Your task to perform on an android device: turn off location Image 0: 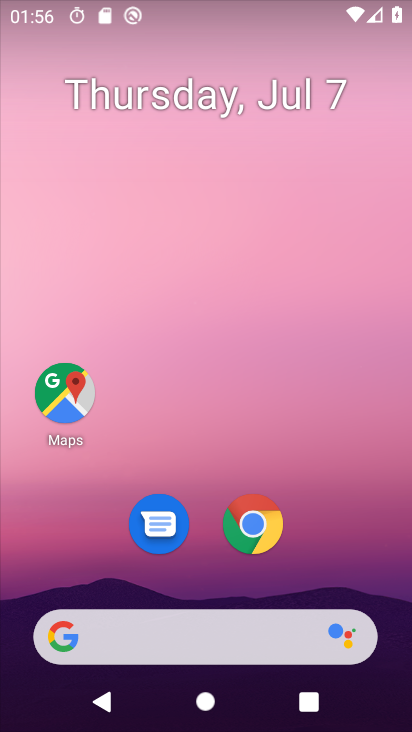
Step 0: drag from (179, 452) to (264, 38)
Your task to perform on an android device: turn off location Image 1: 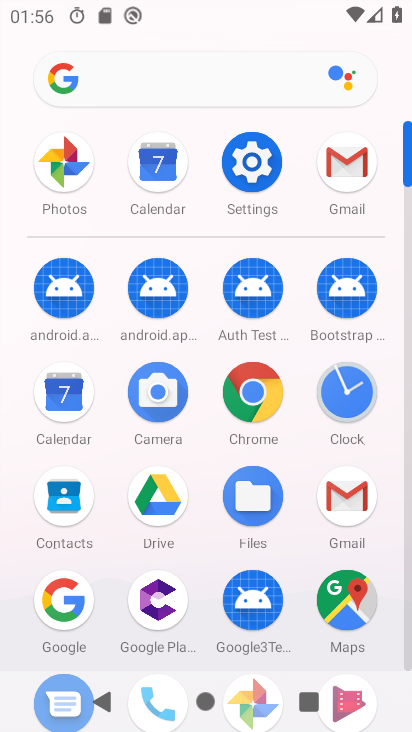
Step 1: click (256, 156)
Your task to perform on an android device: turn off location Image 2: 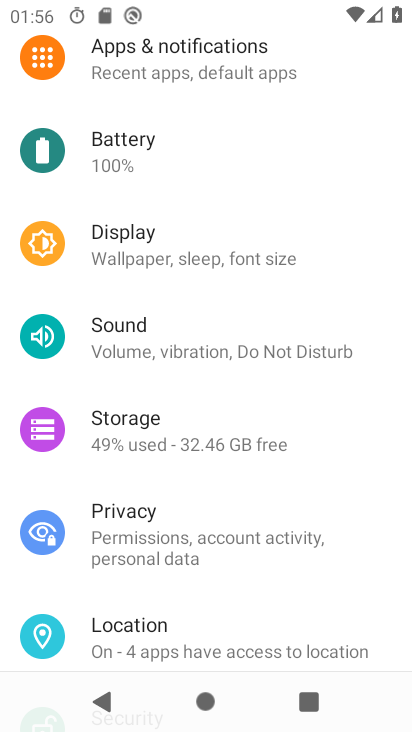
Step 2: click (187, 644)
Your task to perform on an android device: turn off location Image 3: 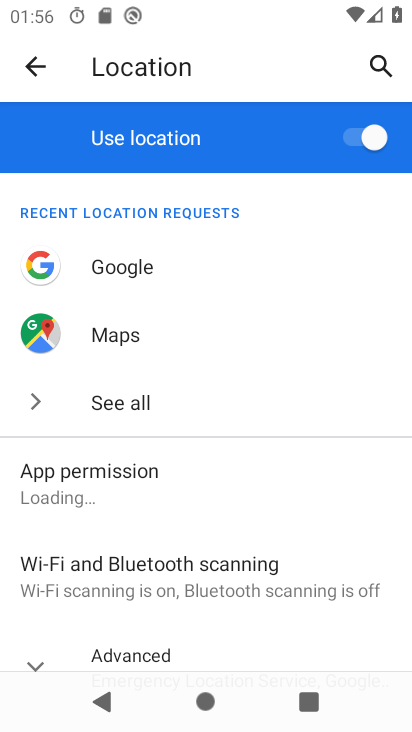
Step 3: click (366, 136)
Your task to perform on an android device: turn off location Image 4: 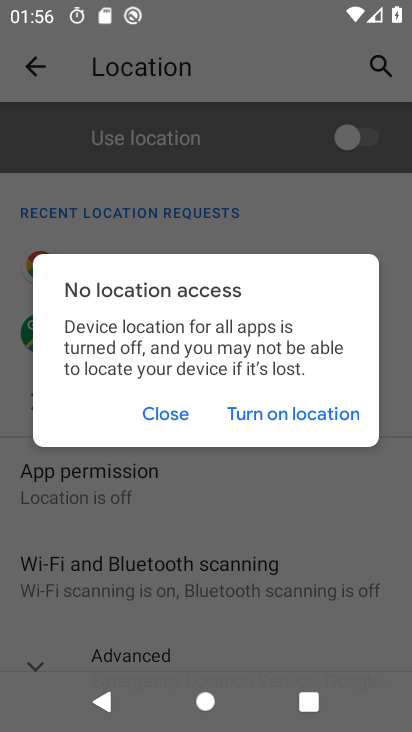
Step 4: click (157, 408)
Your task to perform on an android device: turn off location Image 5: 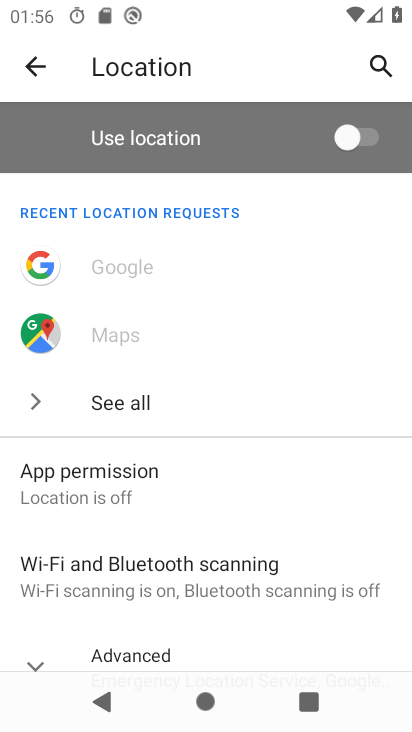
Step 5: task complete